Your task to perform on an android device: see sites visited before in the chrome app Image 0: 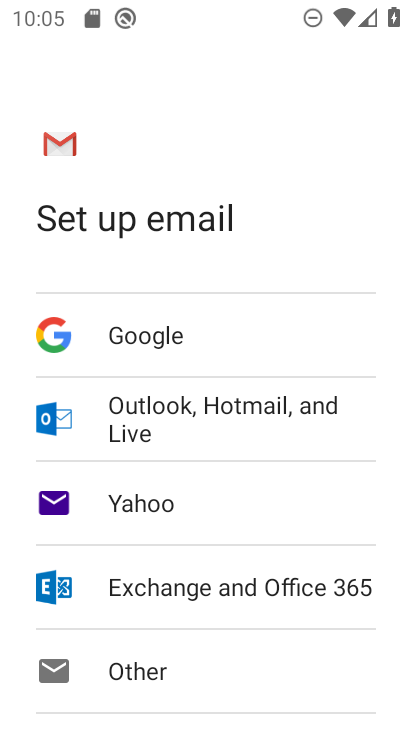
Step 0: press home button
Your task to perform on an android device: see sites visited before in the chrome app Image 1: 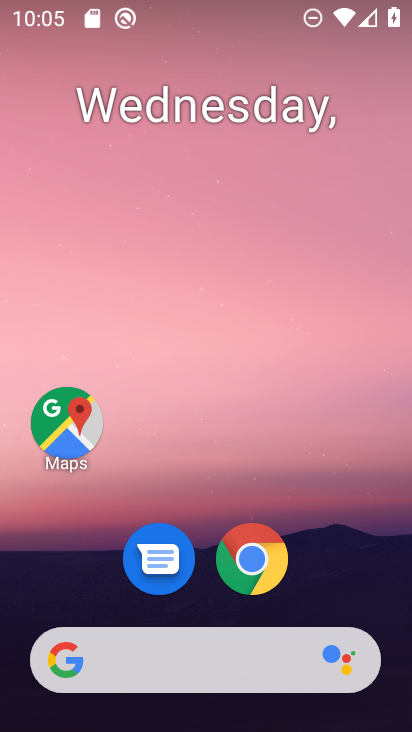
Step 1: drag from (334, 588) to (337, 155)
Your task to perform on an android device: see sites visited before in the chrome app Image 2: 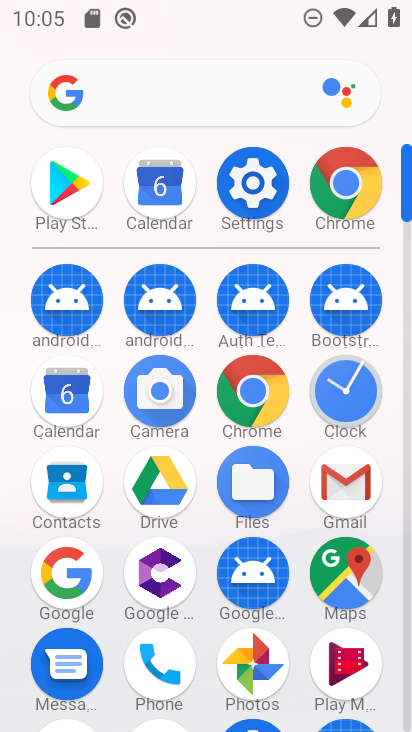
Step 2: click (252, 397)
Your task to perform on an android device: see sites visited before in the chrome app Image 3: 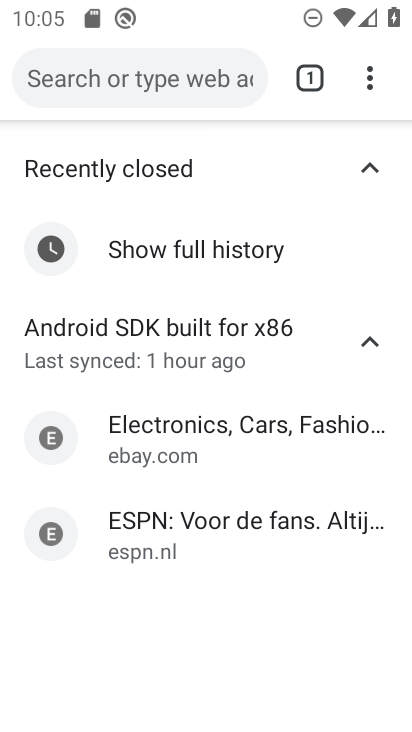
Step 3: click (366, 79)
Your task to perform on an android device: see sites visited before in the chrome app Image 4: 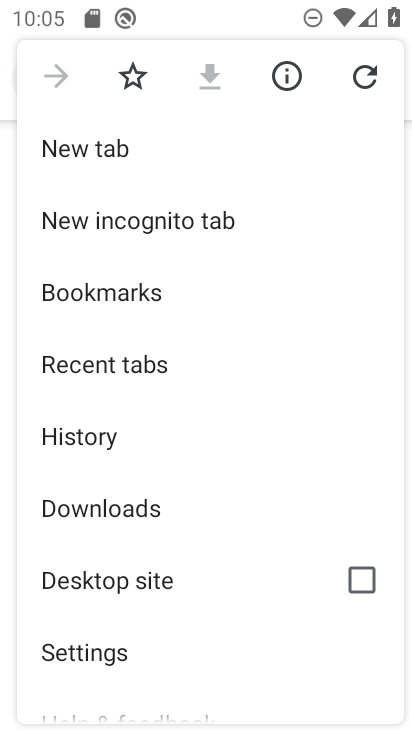
Step 4: click (140, 442)
Your task to perform on an android device: see sites visited before in the chrome app Image 5: 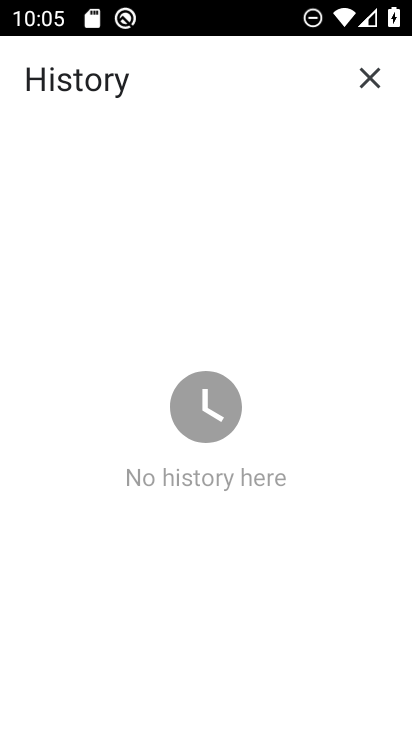
Step 5: task complete